Your task to perform on an android device: make emails show in primary in the gmail app Image 0: 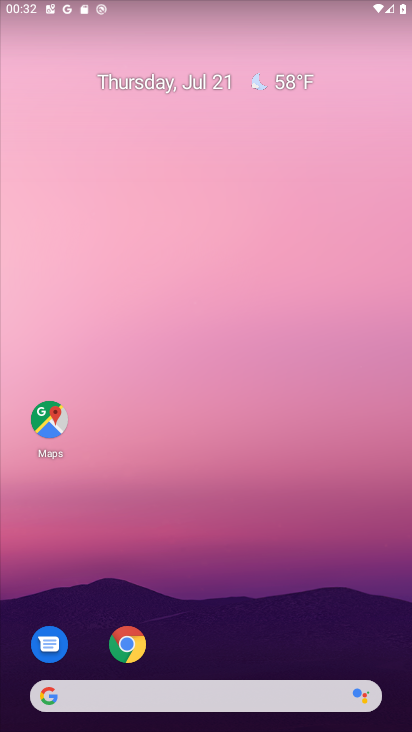
Step 0: drag from (243, 655) to (409, 711)
Your task to perform on an android device: make emails show in primary in the gmail app Image 1: 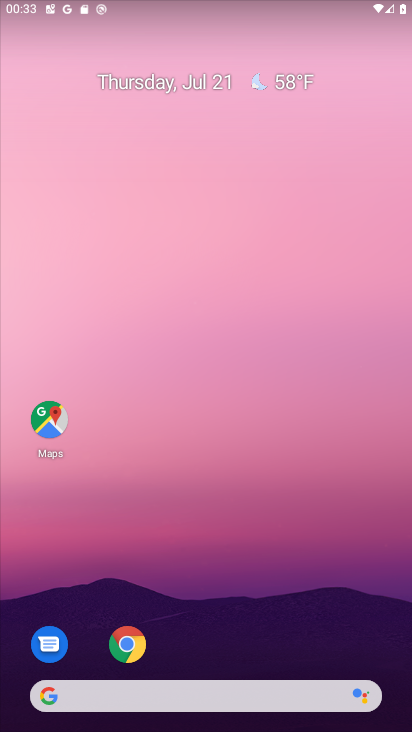
Step 1: drag from (226, 504) to (269, 45)
Your task to perform on an android device: make emails show in primary in the gmail app Image 2: 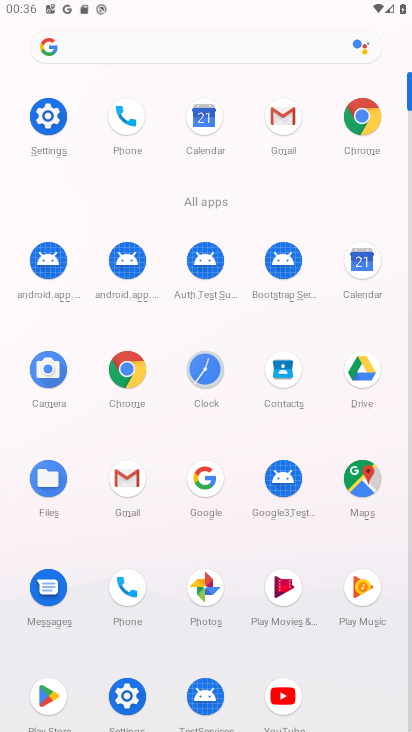
Step 2: click (276, 121)
Your task to perform on an android device: make emails show in primary in the gmail app Image 3: 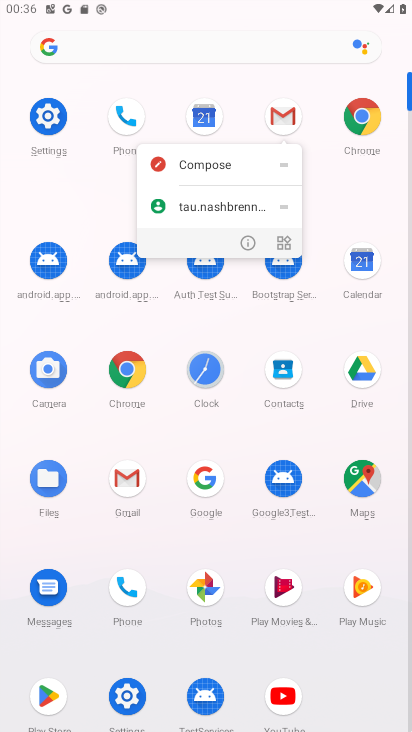
Step 3: click (276, 121)
Your task to perform on an android device: make emails show in primary in the gmail app Image 4: 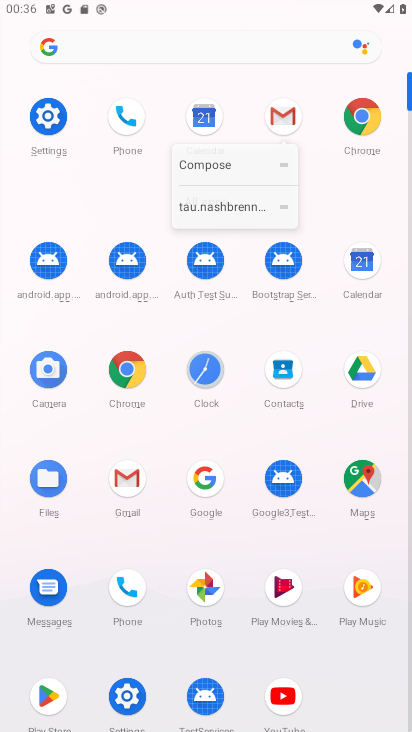
Step 4: click (276, 121)
Your task to perform on an android device: make emails show in primary in the gmail app Image 5: 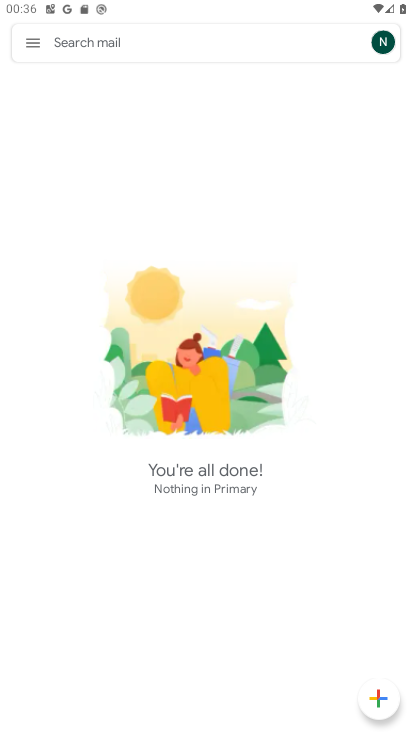
Step 5: click (36, 46)
Your task to perform on an android device: make emails show in primary in the gmail app Image 6: 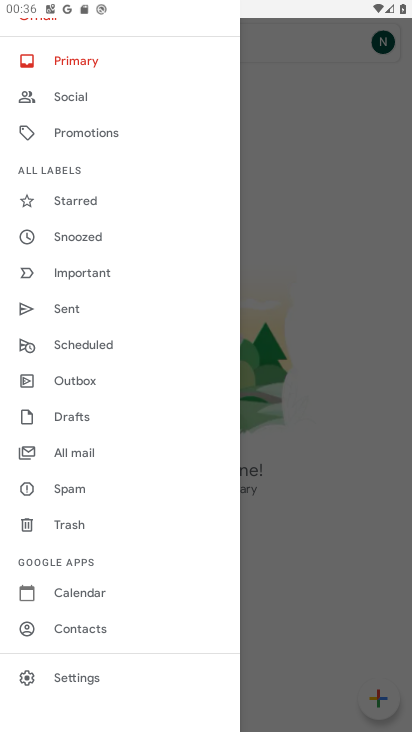
Step 6: click (83, 678)
Your task to perform on an android device: make emails show in primary in the gmail app Image 7: 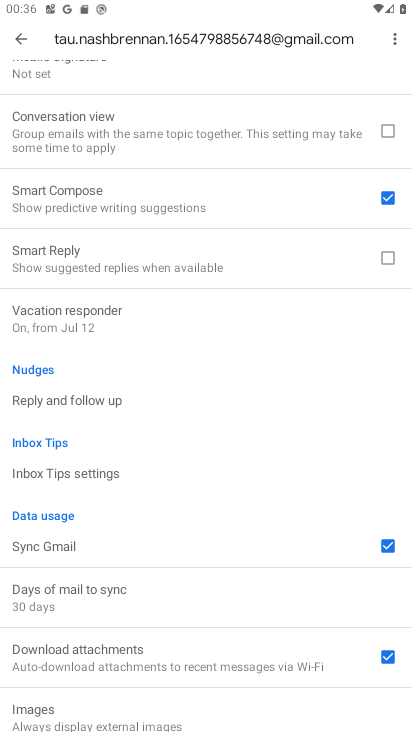
Step 7: drag from (261, 178) to (137, 682)
Your task to perform on an android device: make emails show in primary in the gmail app Image 8: 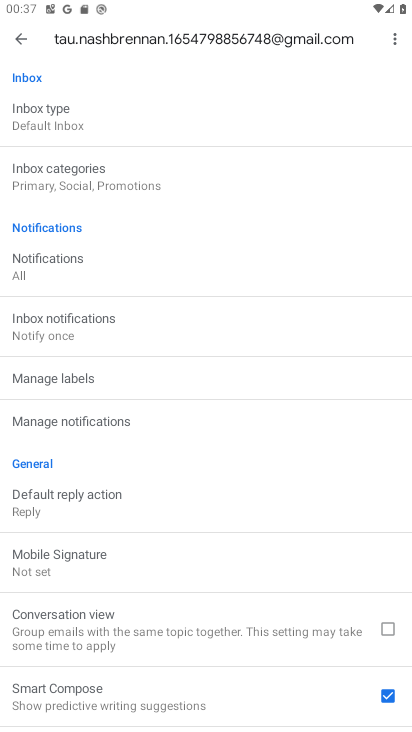
Step 8: click (83, 180)
Your task to perform on an android device: make emails show in primary in the gmail app Image 9: 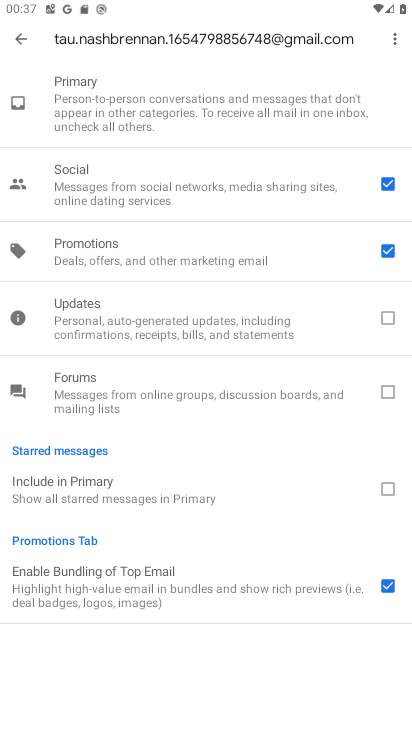
Step 9: click (391, 254)
Your task to perform on an android device: make emails show in primary in the gmail app Image 10: 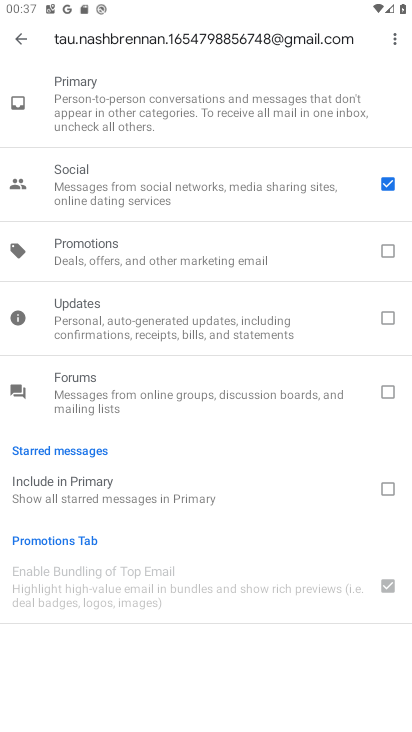
Step 10: click (385, 182)
Your task to perform on an android device: make emails show in primary in the gmail app Image 11: 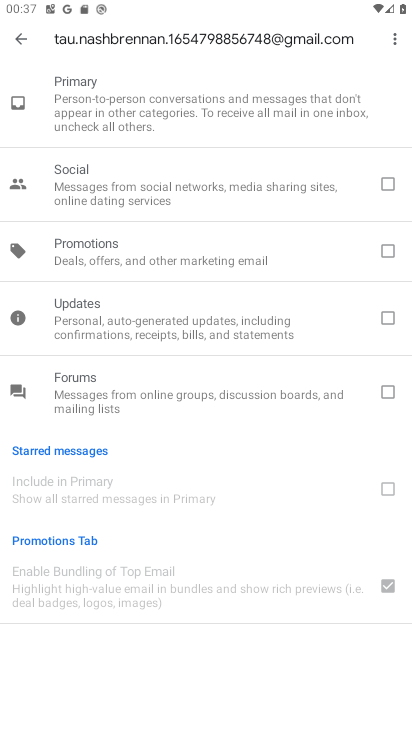
Step 11: task complete